Your task to perform on an android device: Open maps Image 0: 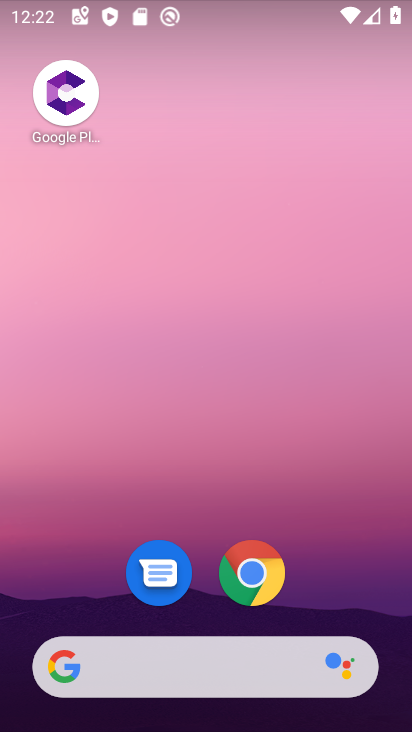
Step 0: drag from (186, 710) to (140, 291)
Your task to perform on an android device: Open maps Image 1: 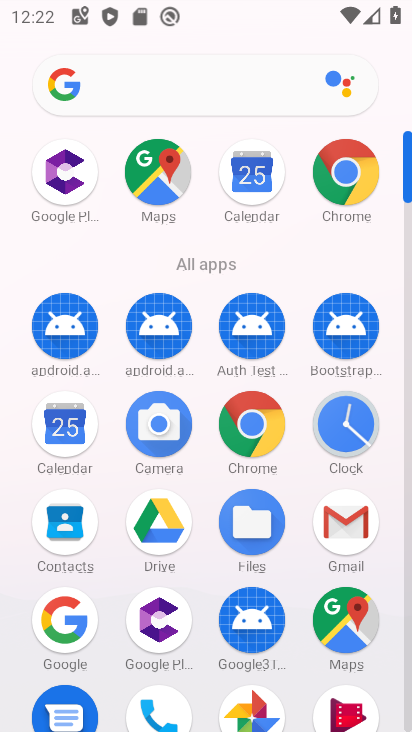
Step 1: click (145, 176)
Your task to perform on an android device: Open maps Image 2: 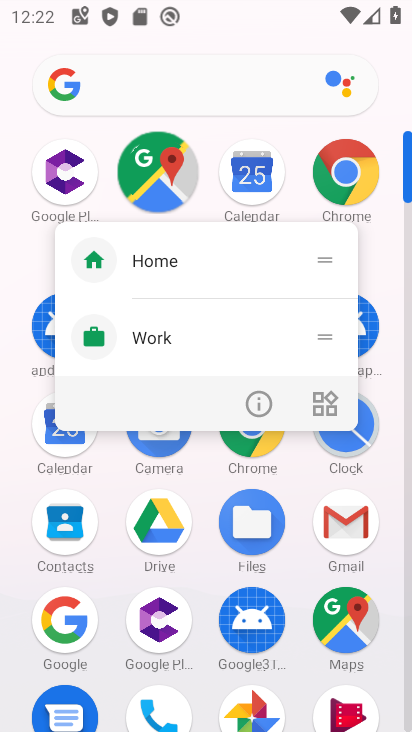
Step 2: click (145, 176)
Your task to perform on an android device: Open maps Image 3: 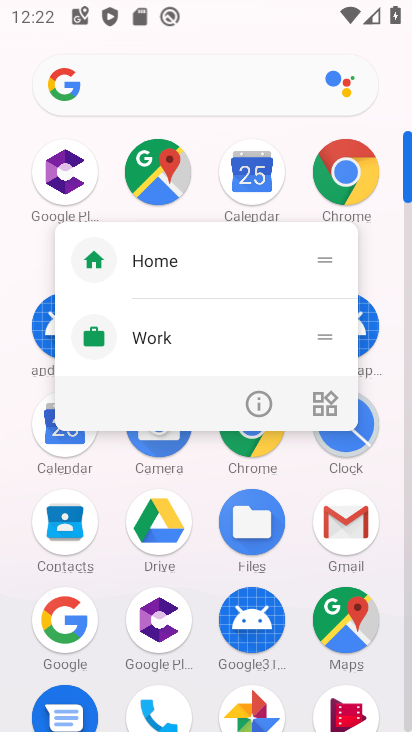
Step 3: click (146, 177)
Your task to perform on an android device: Open maps Image 4: 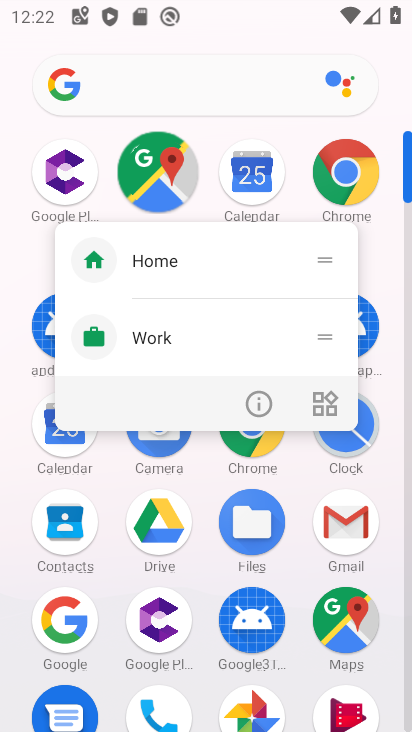
Step 4: click (146, 177)
Your task to perform on an android device: Open maps Image 5: 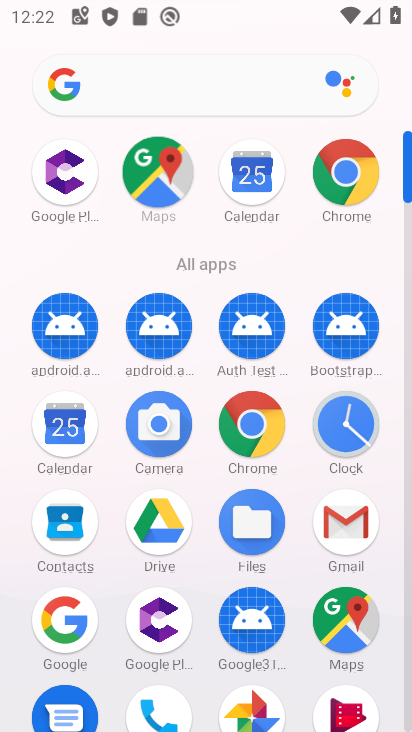
Step 5: click (146, 177)
Your task to perform on an android device: Open maps Image 6: 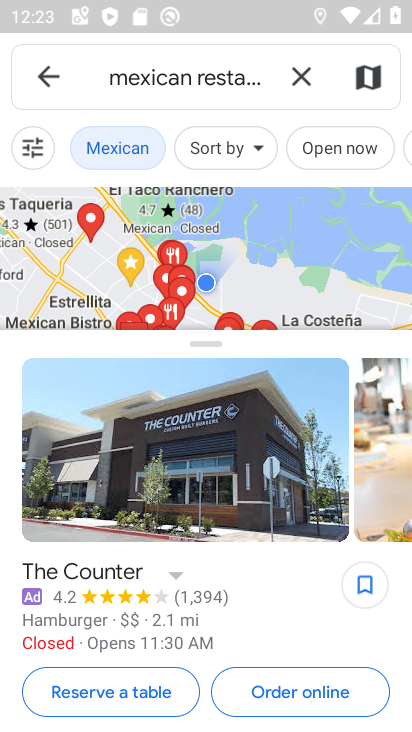
Step 6: click (37, 75)
Your task to perform on an android device: Open maps Image 7: 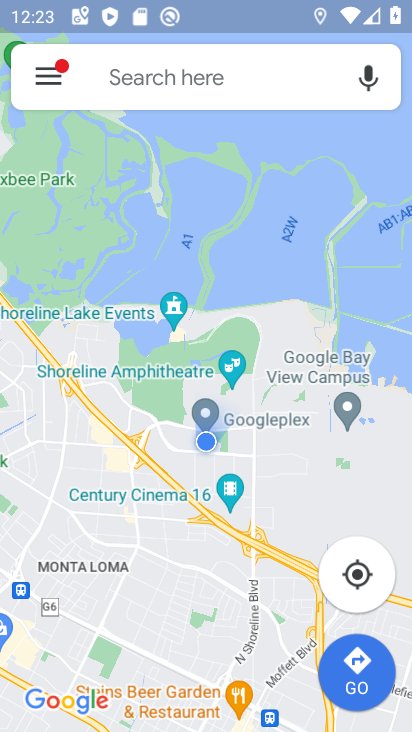
Step 7: click (122, 77)
Your task to perform on an android device: Open maps Image 8: 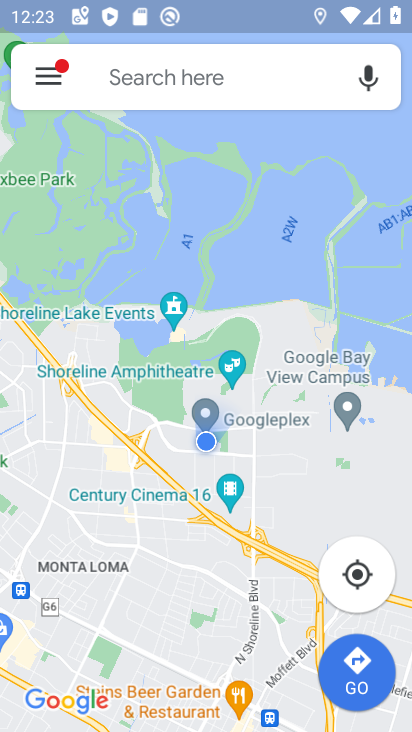
Step 8: click (91, 124)
Your task to perform on an android device: Open maps Image 9: 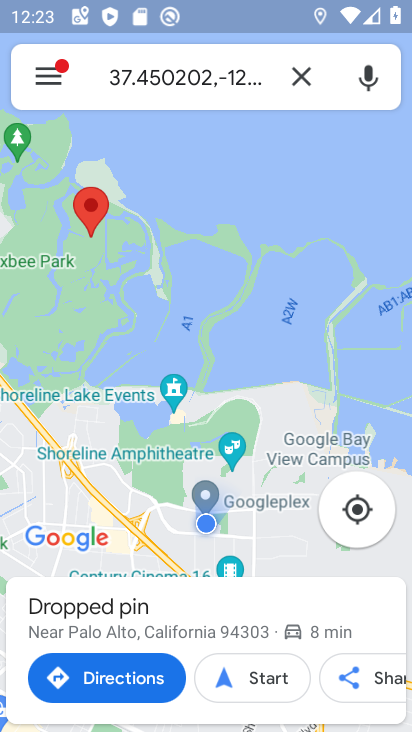
Step 9: click (289, 72)
Your task to perform on an android device: Open maps Image 10: 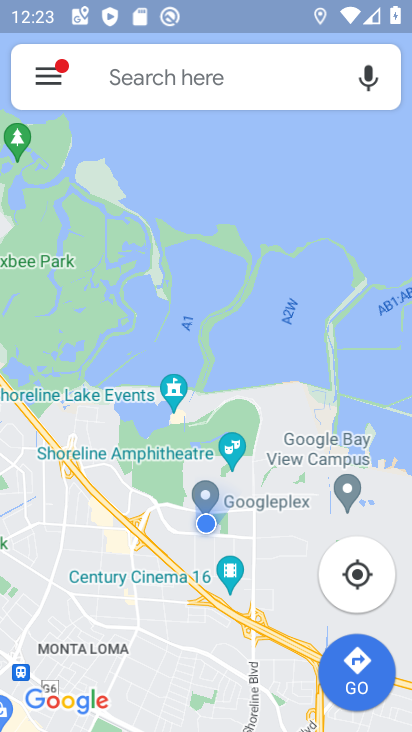
Step 10: click (118, 69)
Your task to perform on an android device: Open maps Image 11: 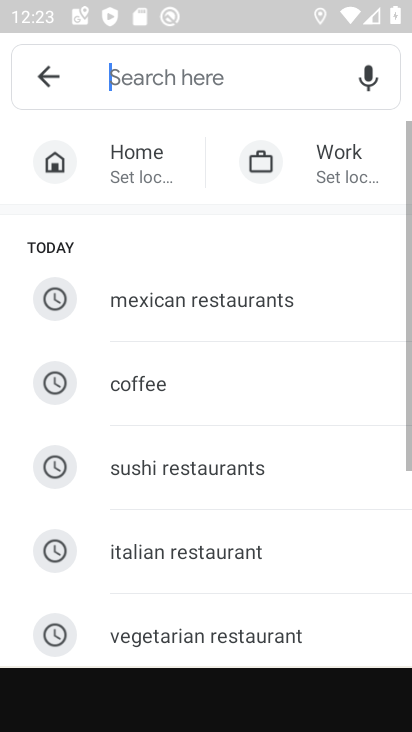
Step 11: click (117, 77)
Your task to perform on an android device: Open maps Image 12: 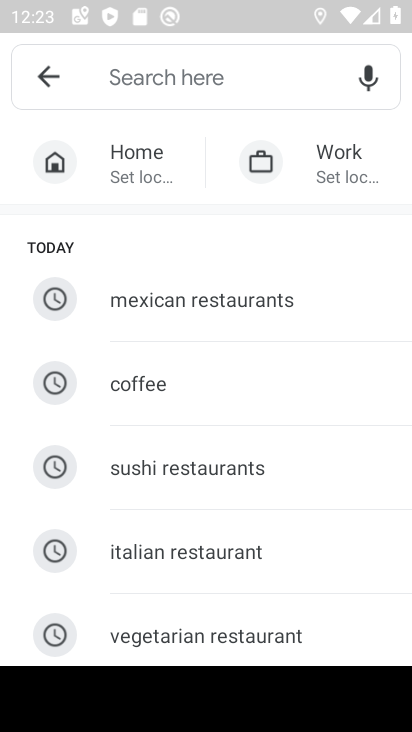
Step 12: click (41, 75)
Your task to perform on an android device: Open maps Image 13: 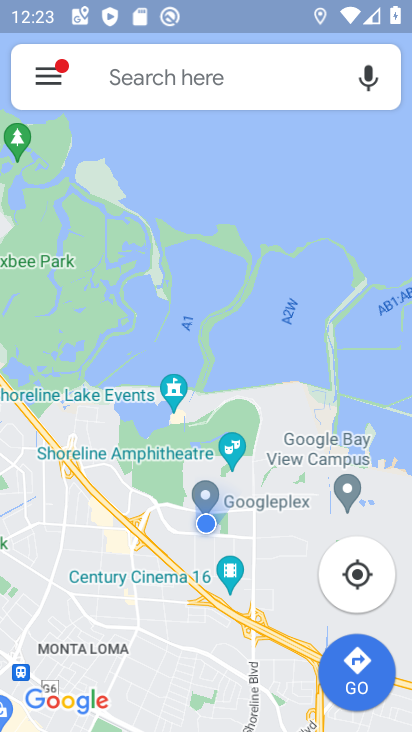
Step 13: task complete